Your task to perform on an android device: Open Maps and search for coffee Image 0: 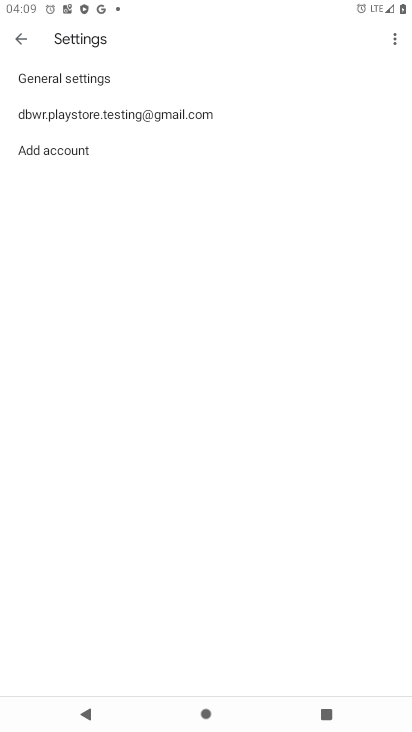
Step 0: press home button
Your task to perform on an android device: Open Maps and search for coffee Image 1: 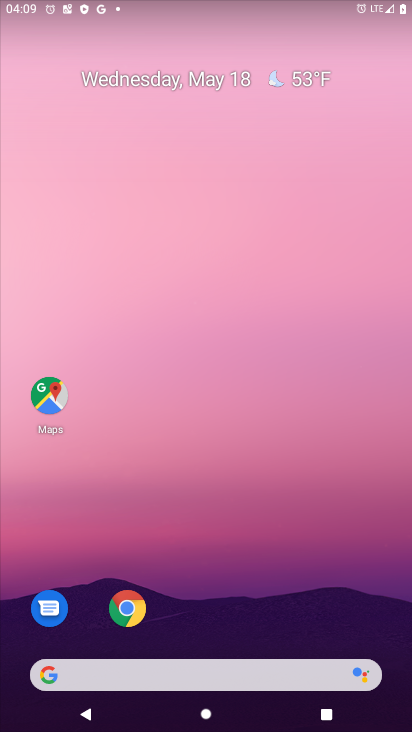
Step 1: click (47, 399)
Your task to perform on an android device: Open Maps and search for coffee Image 2: 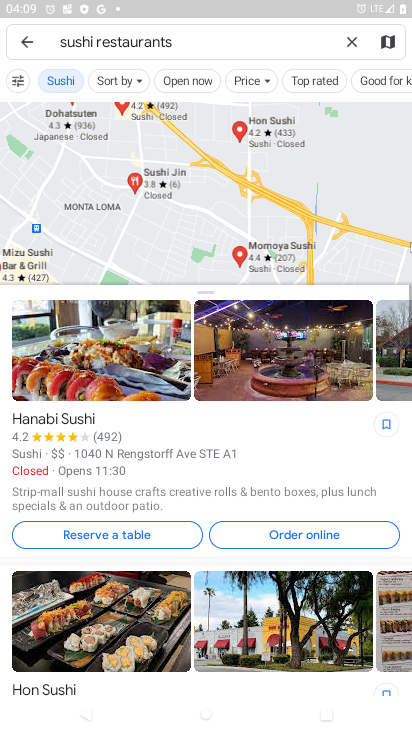
Step 2: click (354, 39)
Your task to perform on an android device: Open Maps and search for coffee Image 3: 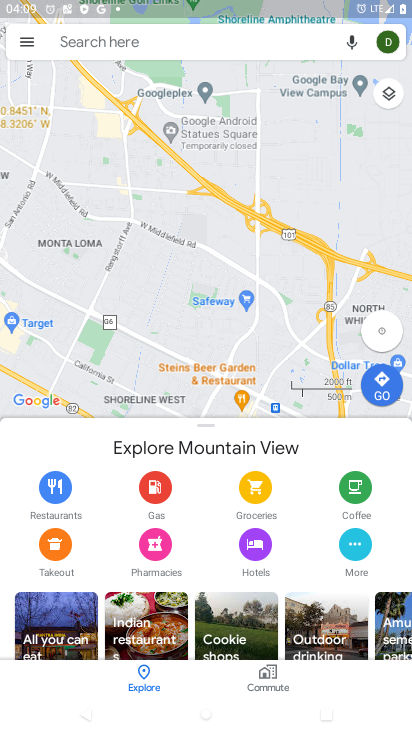
Step 3: click (155, 35)
Your task to perform on an android device: Open Maps and search for coffee Image 4: 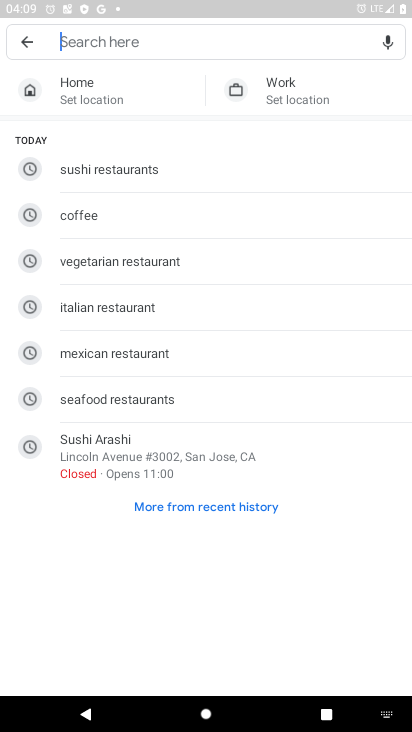
Step 4: type "coffee"
Your task to perform on an android device: Open Maps and search for coffee Image 5: 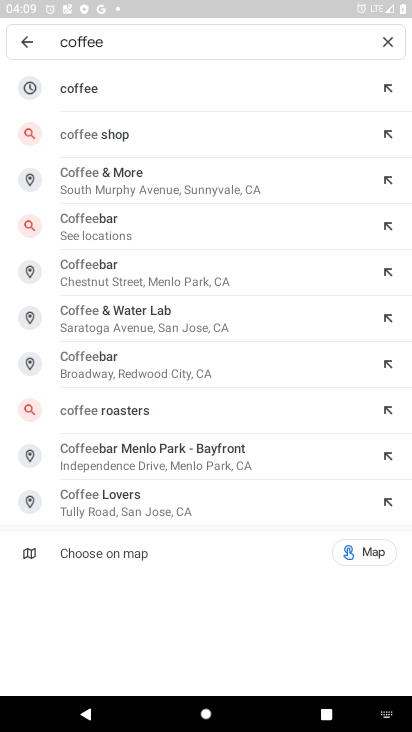
Step 5: click (85, 95)
Your task to perform on an android device: Open Maps and search for coffee Image 6: 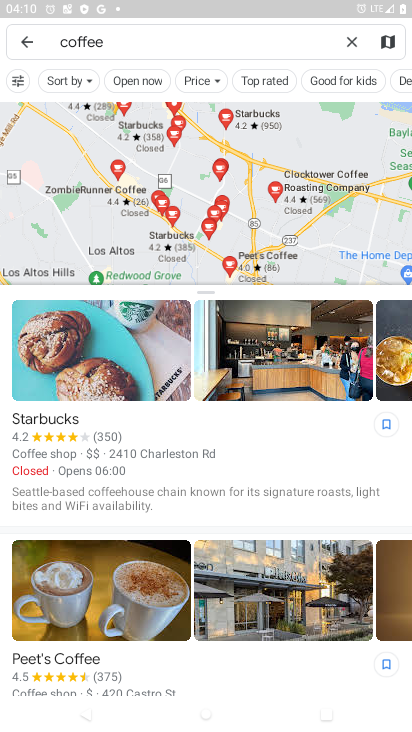
Step 6: task complete